Your task to perform on an android device: Open calendar and show me the first week of next month Image 0: 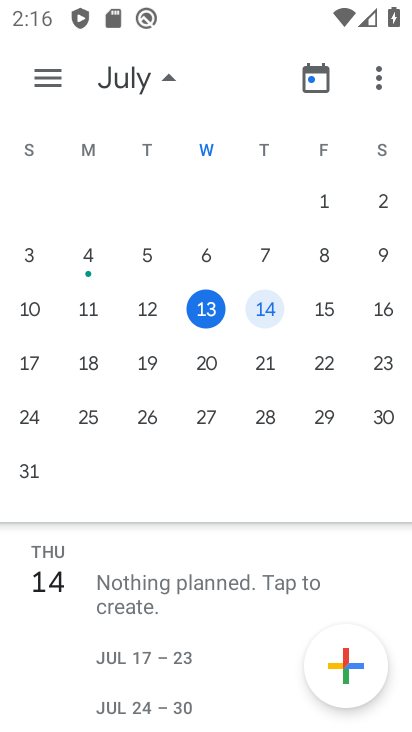
Step 0: press home button
Your task to perform on an android device: Open calendar and show me the first week of next month Image 1: 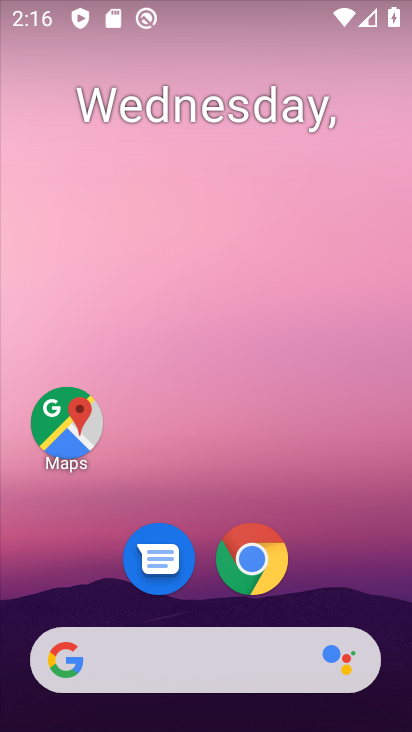
Step 1: drag from (367, 561) to (394, 137)
Your task to perform on an android device: Open calendar and show me the first week of next month Image 2: 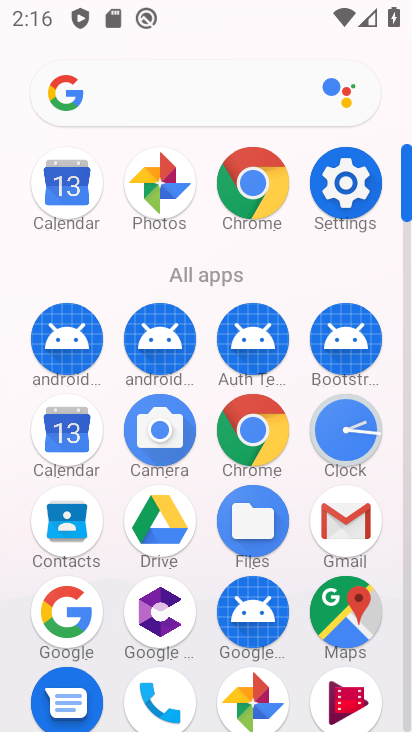
Step 2: click (73, 436)
Your task to perform on an android device: Open calendar and show me the first week of next month Image 3: 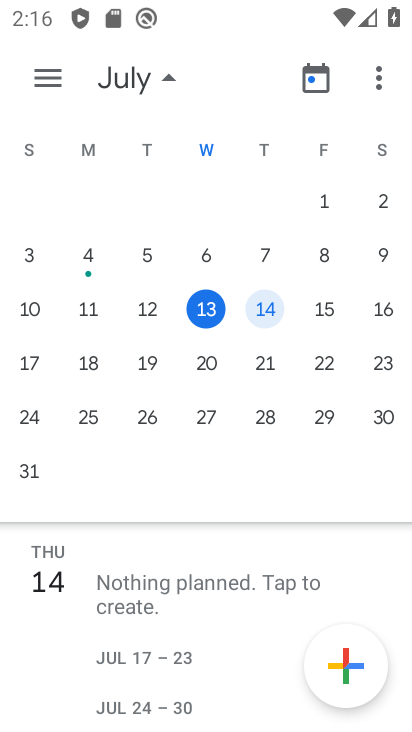
Step 3: task complete